Your task to perform on an android device: Open Youtube and go to the subscriptions tab Image 0: 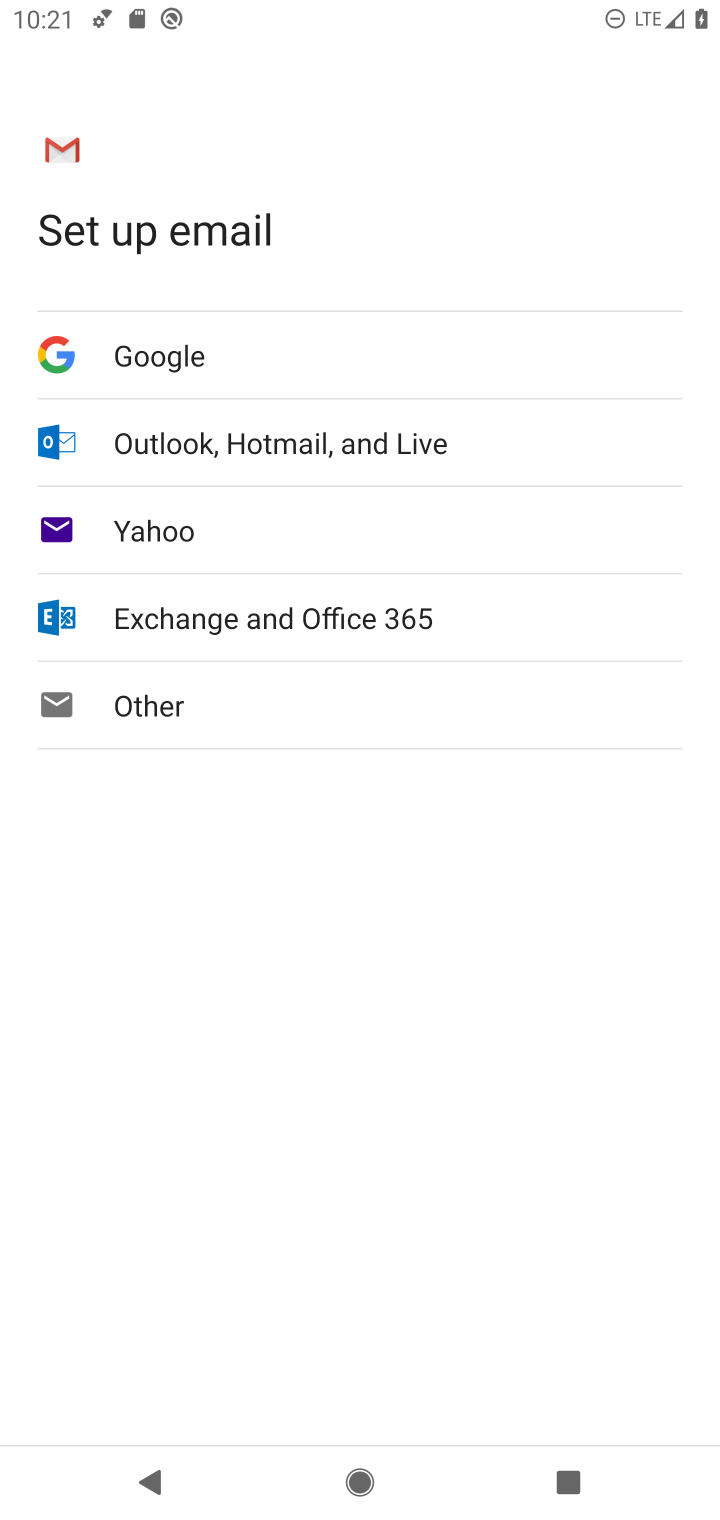
Step 0: press home button
Your task to perform on an android device: Open Youtube and go to the subscriptions tab Image 1: 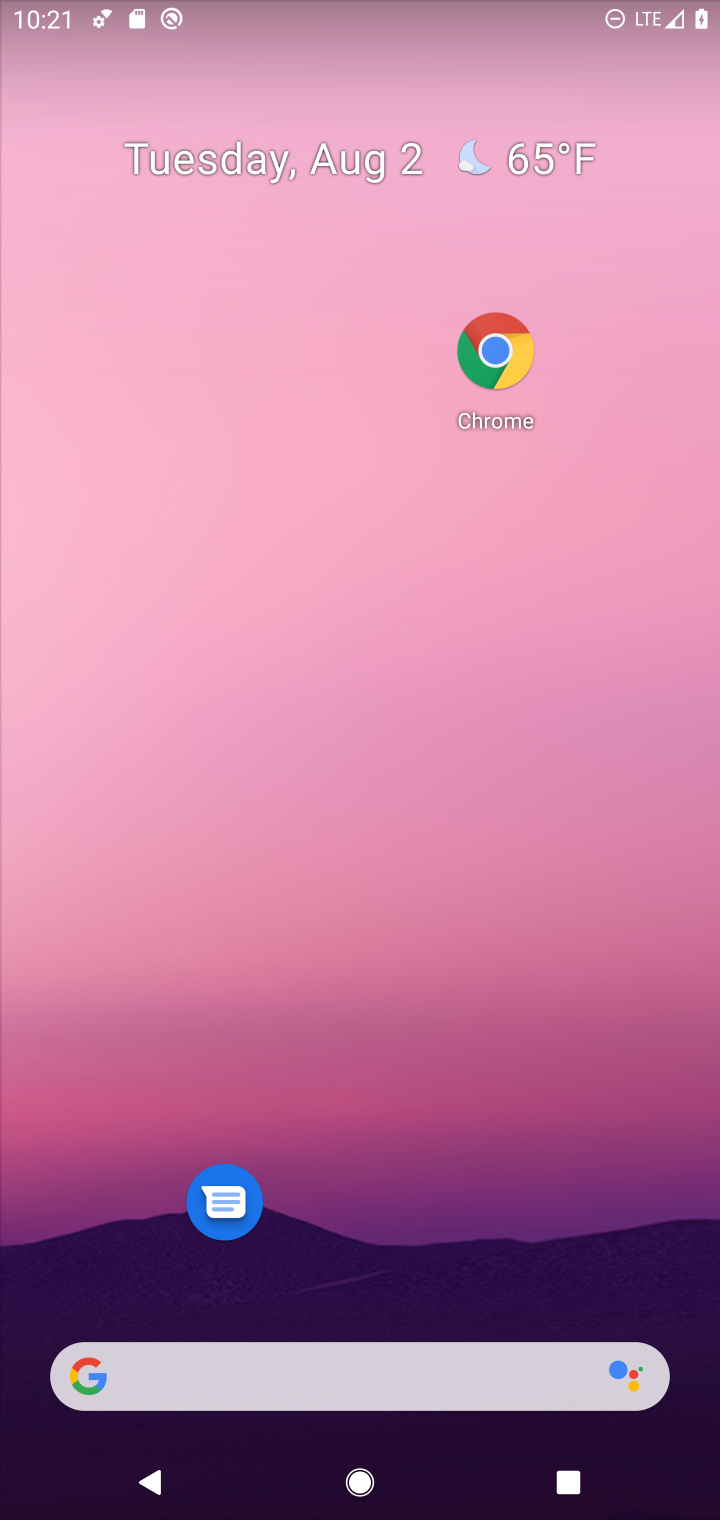
Step 1: drag from (396, 1290) to (433, 4)
Your task to perform on an android device: Open Youtube and go to the subscriptions tab Image 2: 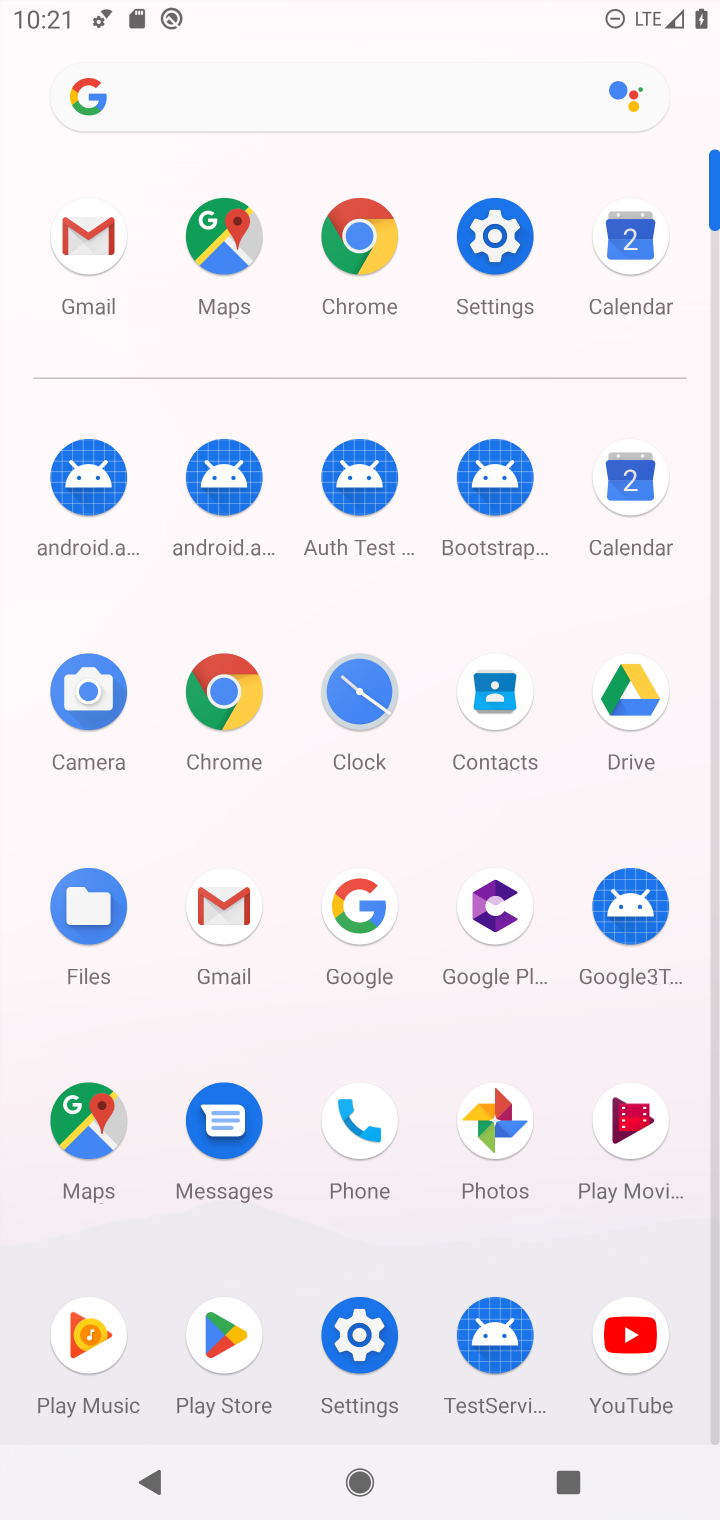
Step 2: click (633, 1343)
Your task to perform on an android device: Open Youtube and go to the subscriptions tab Image 3: 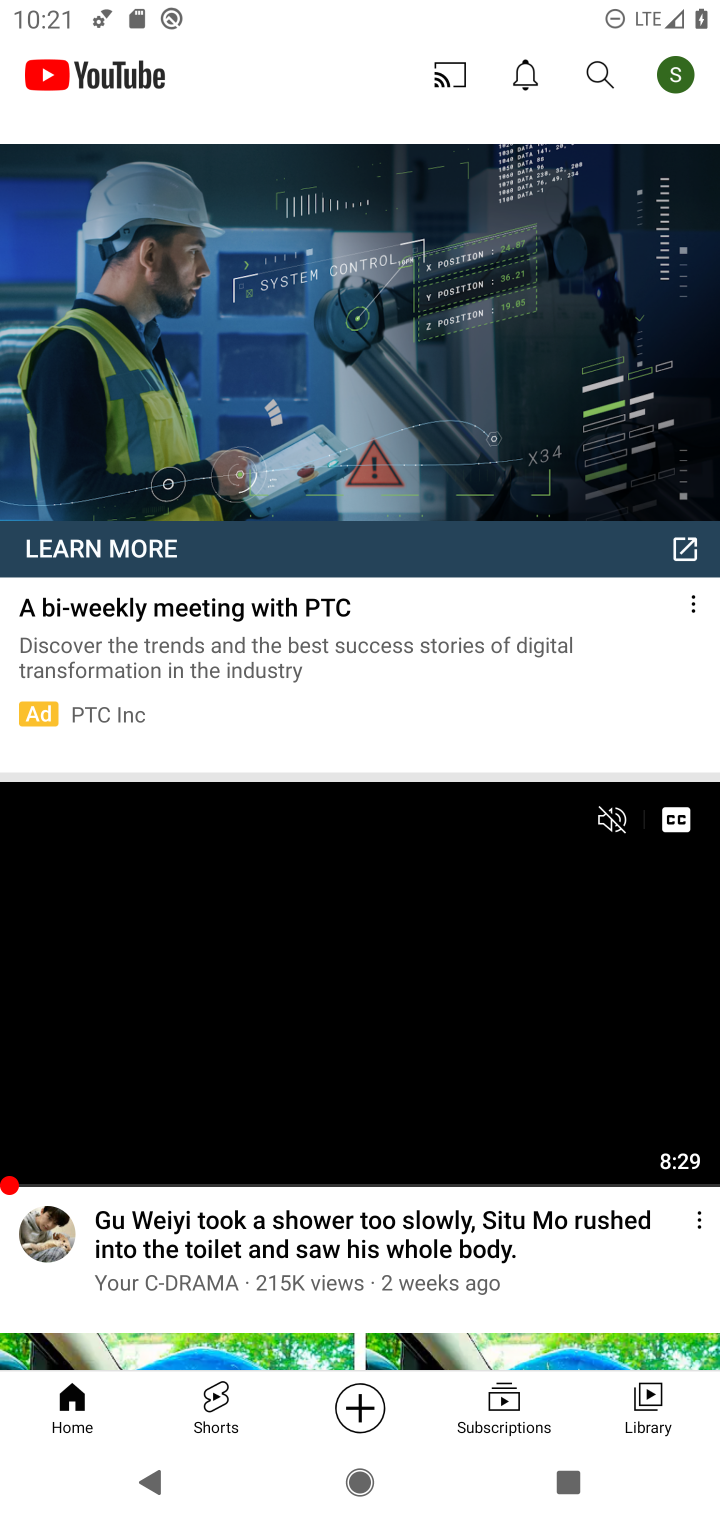
Step 3: click (513, 1408)
Your task to perform on an android device: Open Youtube and go to the subscriptions tab Image 4: 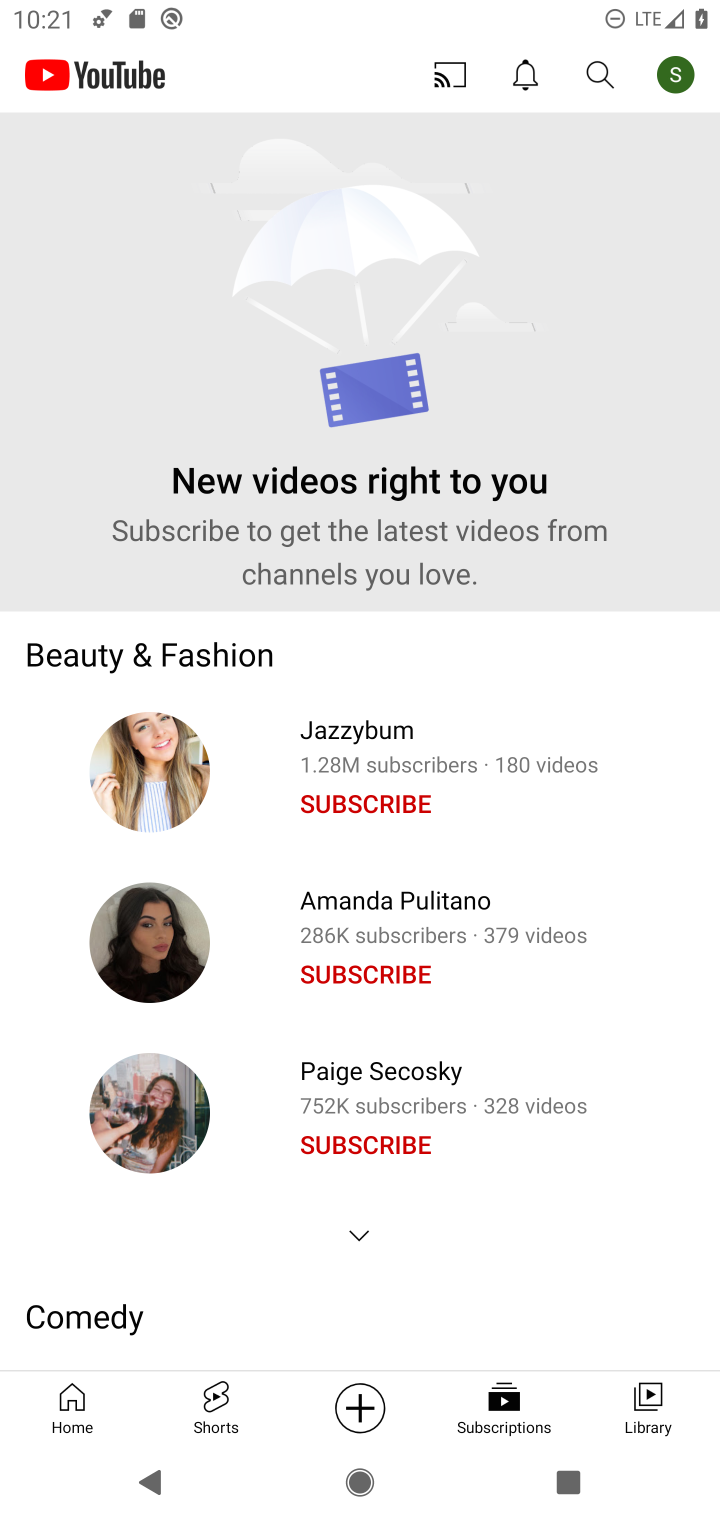
Step 4: task complete